Your task to perform on an android device: Add beats solo 3 to the cart on costco.com Image 0: 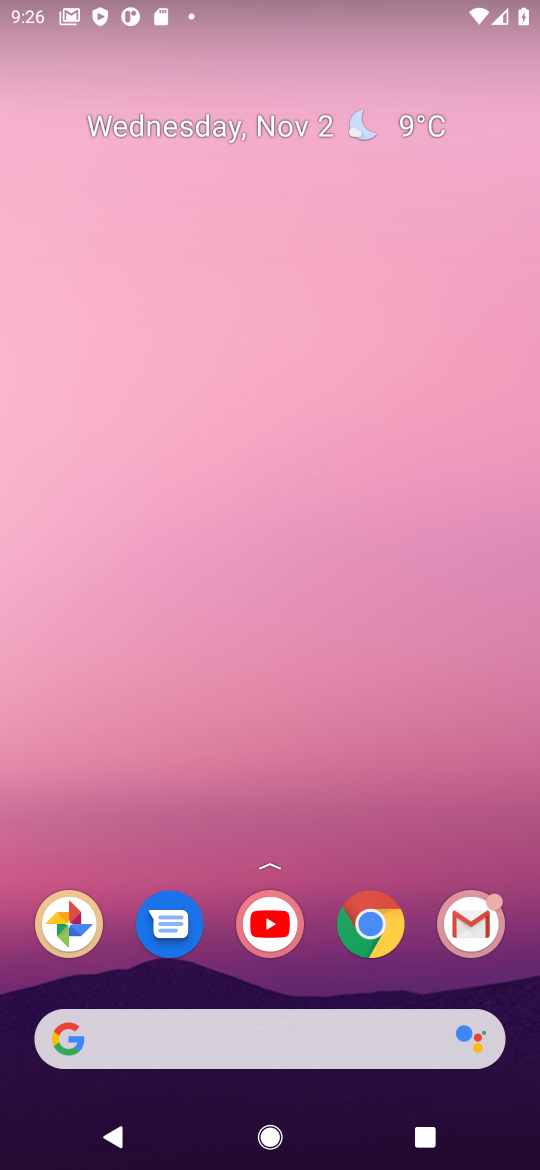
Step 0: click (372, 950)
Your task to perform on an android device: Add beats solo 3 to the cart on costco.com Image 1: 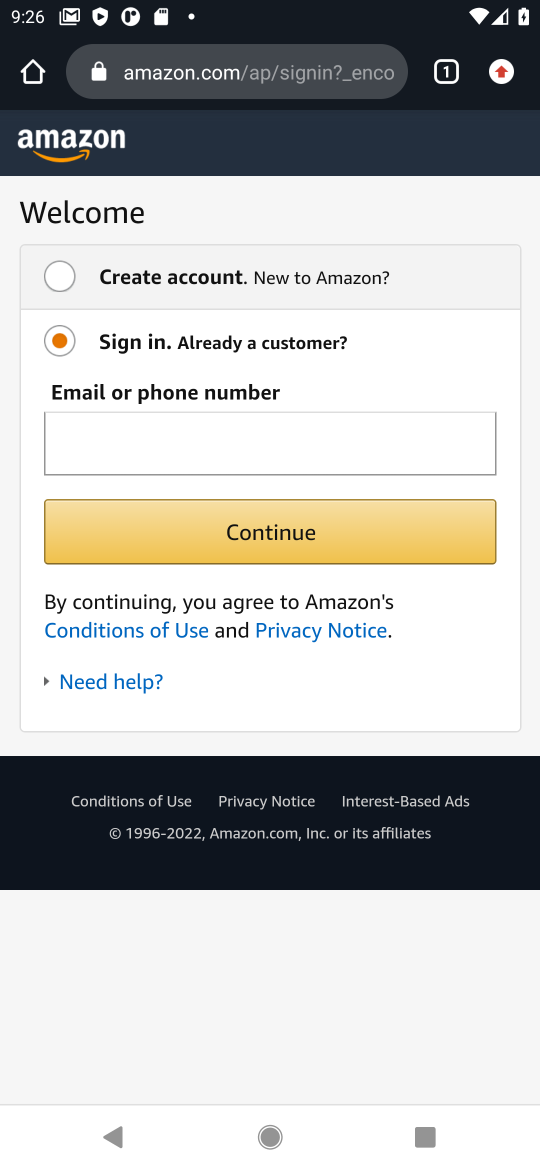
Step 1: press home button
Your task to perform on an android device: Add beats solo 3 to the cart on costco.com Image 2: 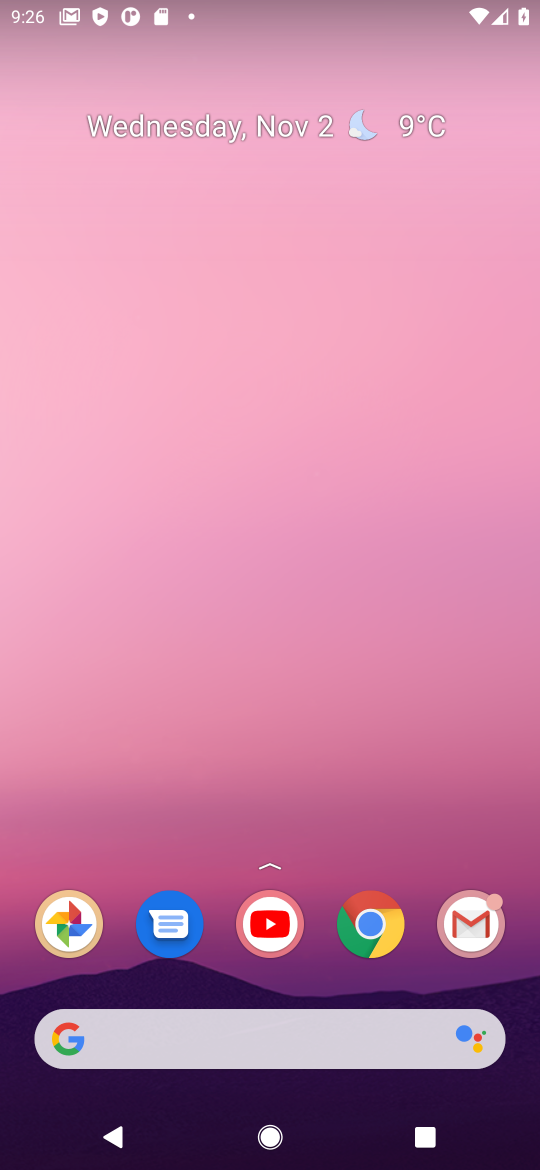
Step 2: click (381, 925)
Your task to perform on an android device: Add beats solo 3 to the cart on costco.com Image 3: 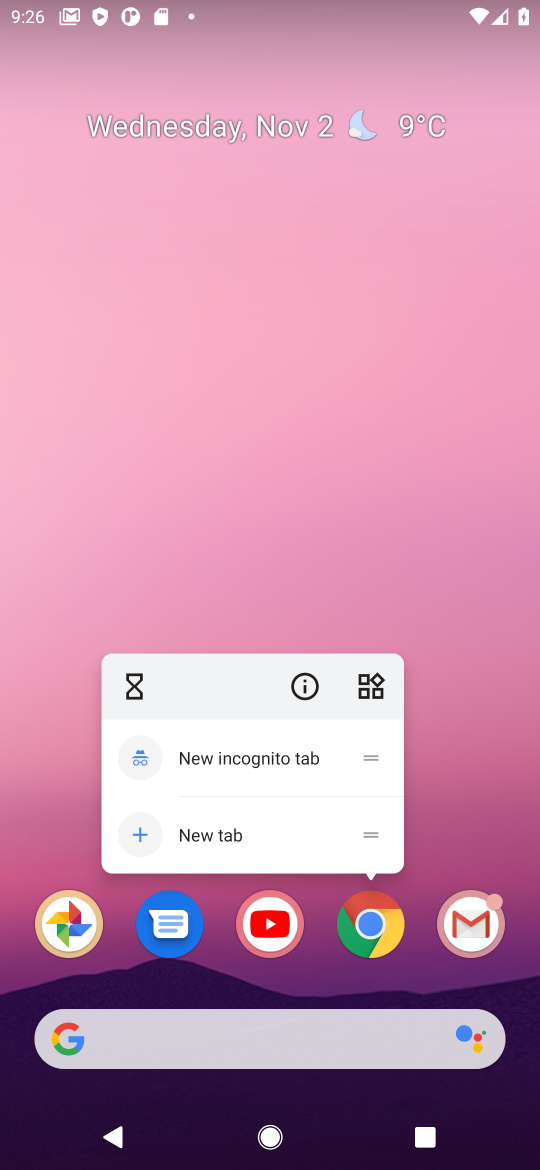
Step 3: click (381, 925)
Your task to perform on an android device: Add beats solo 3 to the cart on costco.com Image 4: 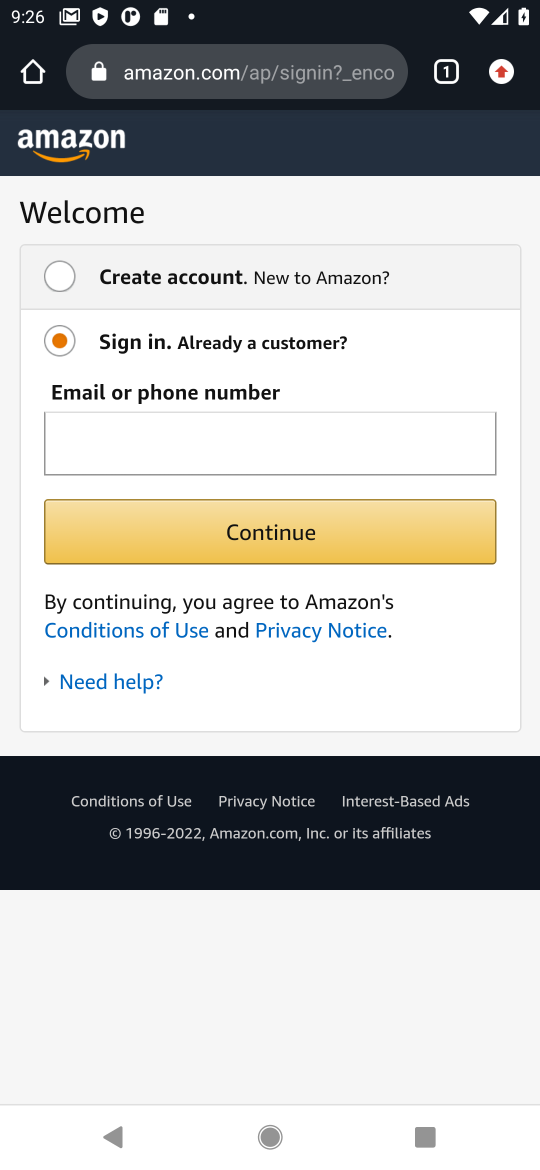
Step 4: click (169, 60)
Your task to perform on an android device: Add beats solo 3 to the cart on costco.com Image 5: 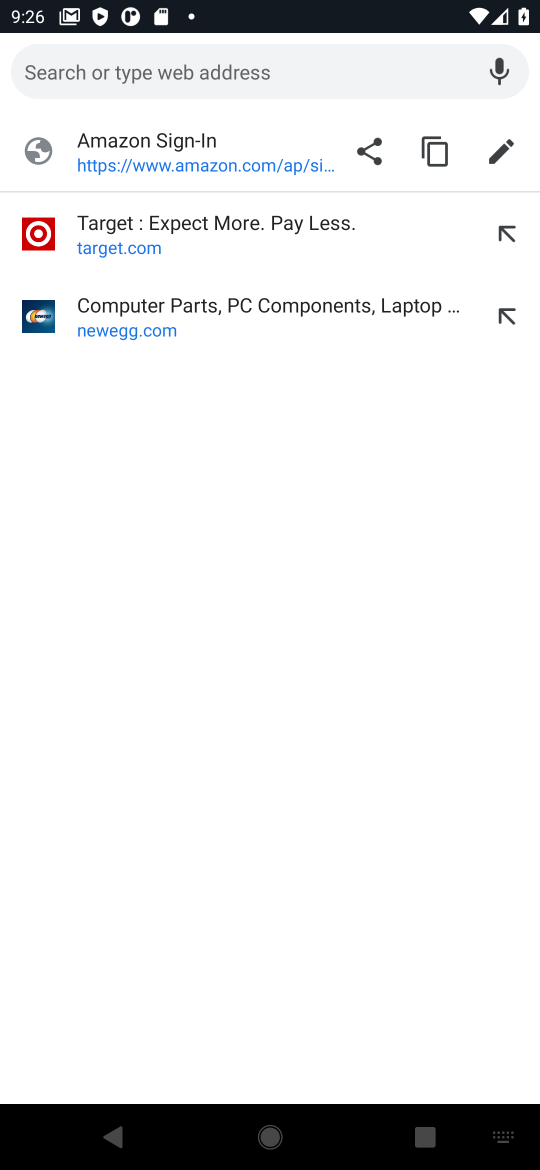
Step 5: type "costco"
Your task to perform on an android device: Add beats solo 3 to the cart on costco.com Image 6: 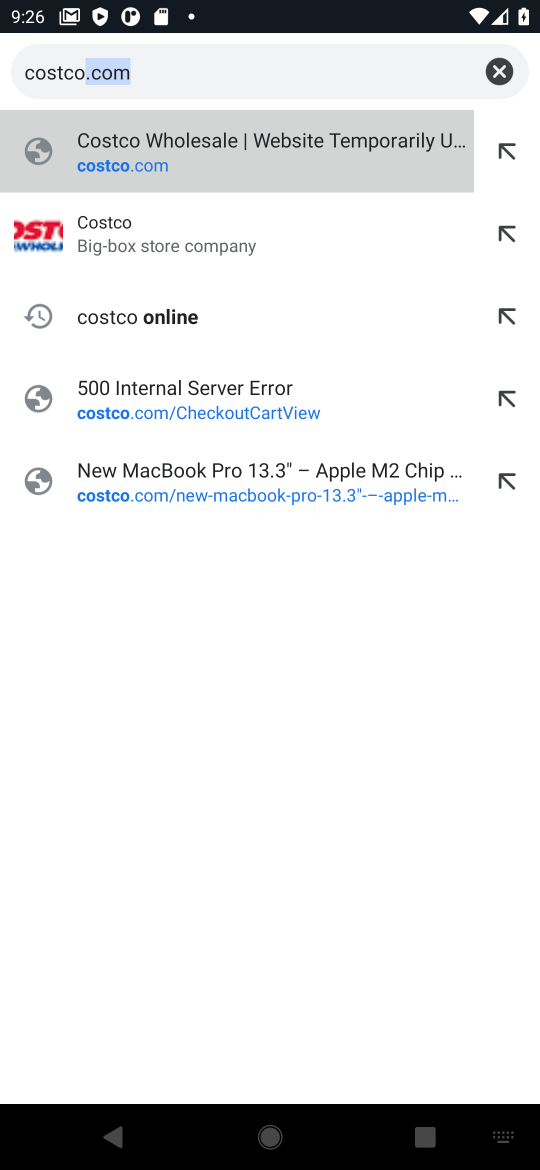
Step 6: type ""
Your task to perform on an android device: Add beats solo 3 to the cart on costco.com Image 7: 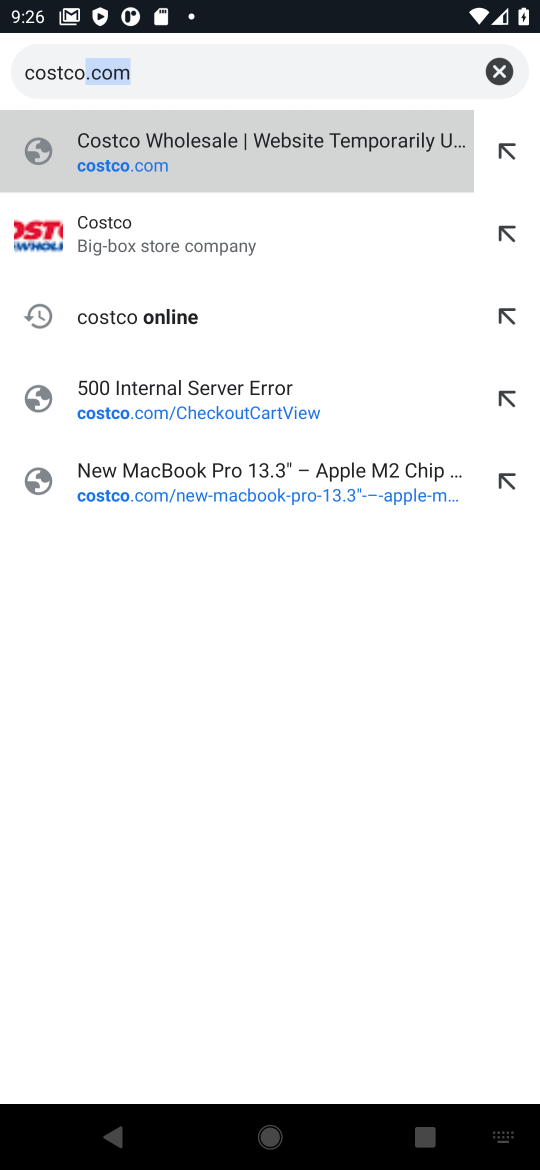
Step 7: click (130, 216)
Your task to perform on an android device: Add beats solo 3 to the cart on costco.com Image 8: 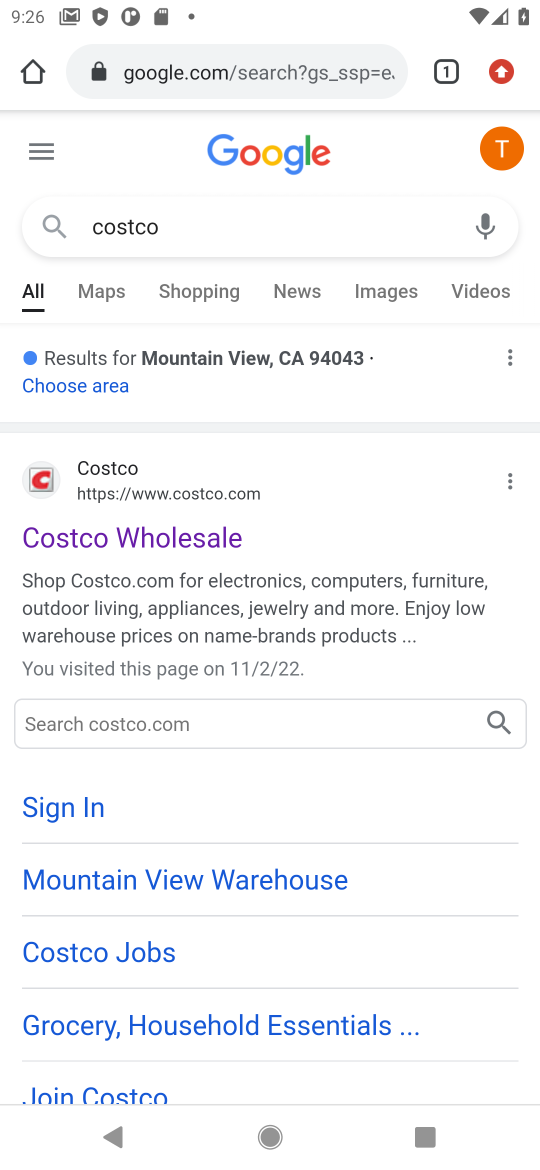
Step 8: click (169, 543)
Your task to perform on an android device: Add beats solo 3 to the cart on costco.com Image 9: 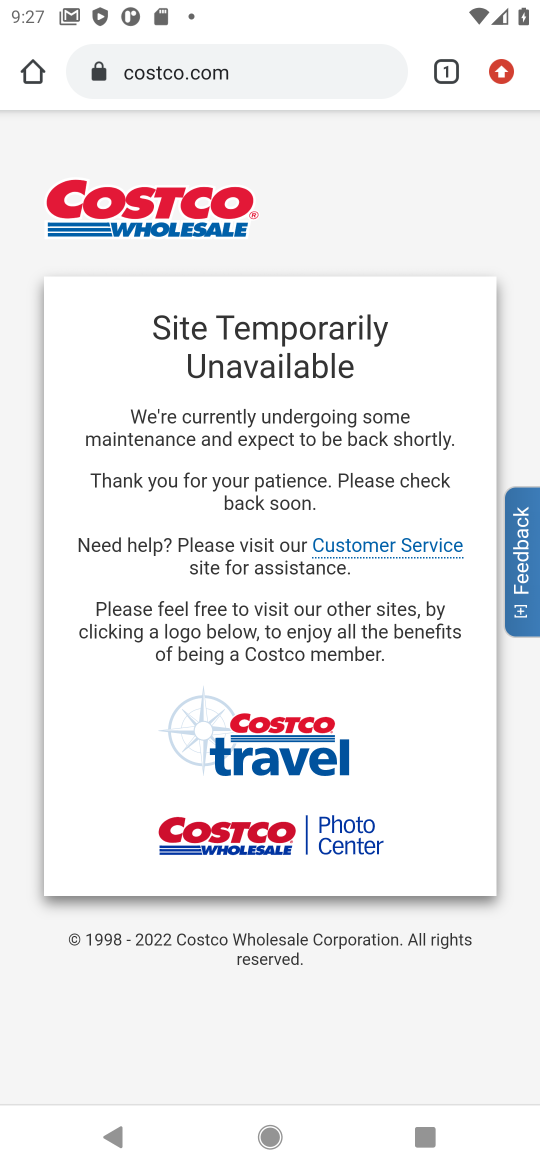
Step 9: press back button
Your task to perform on an android device: Add beats solo 3 to the cart on costco.com Image 10: 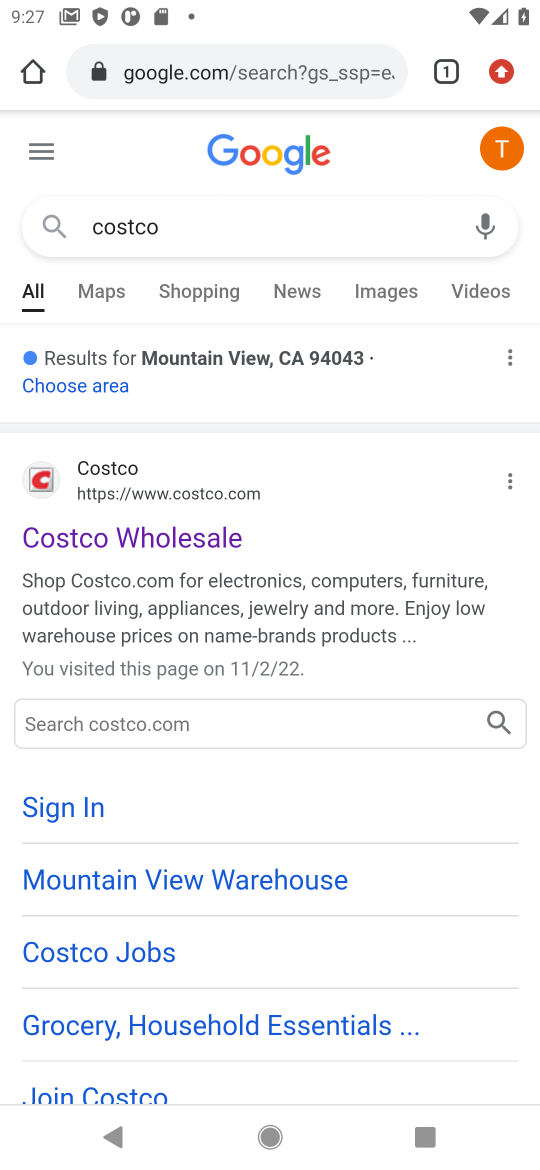
Step 10: drag from (295, 719) to (301, 197)
Your task to perform on an android device: Add beats solo 3 to the cart on costco.com Image 11: 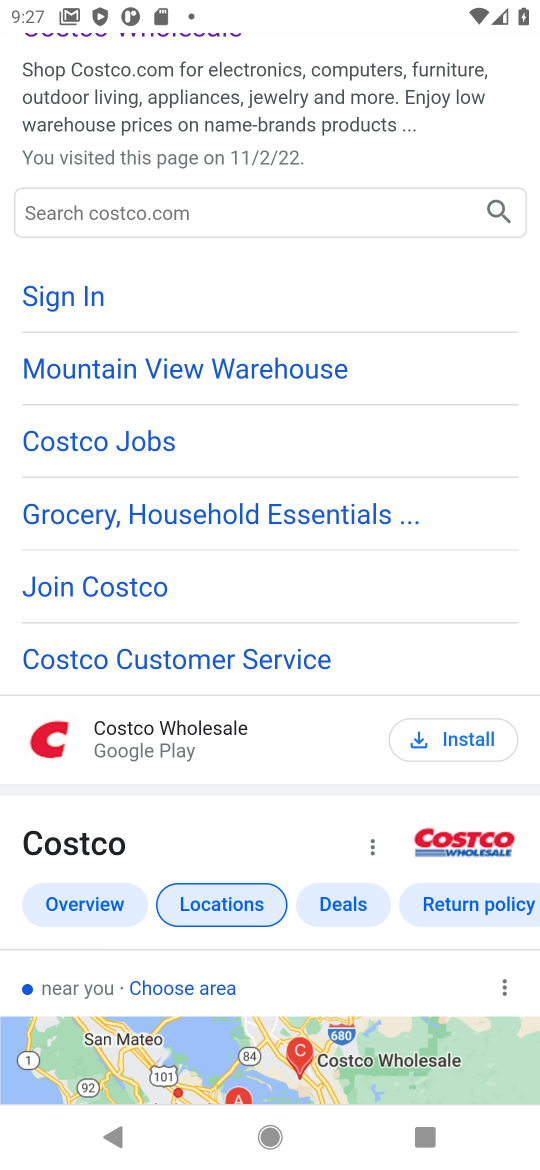
Step 11: drag from (188, 890) to (359, 121)
Your task to perform on an android device: Add beats solo 3 to the cart on costco.com Image 12: 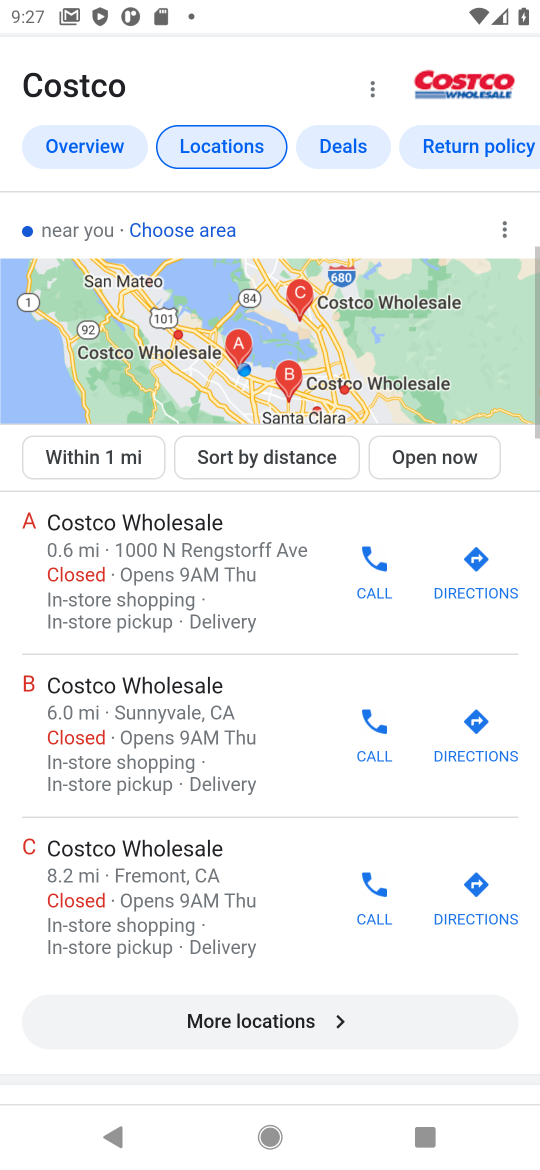
Step 12: drag from (154, 920) to (226, 255)
Your task to perform on an android device: Add beats solo 3 to the cart on costco.com Image 13: 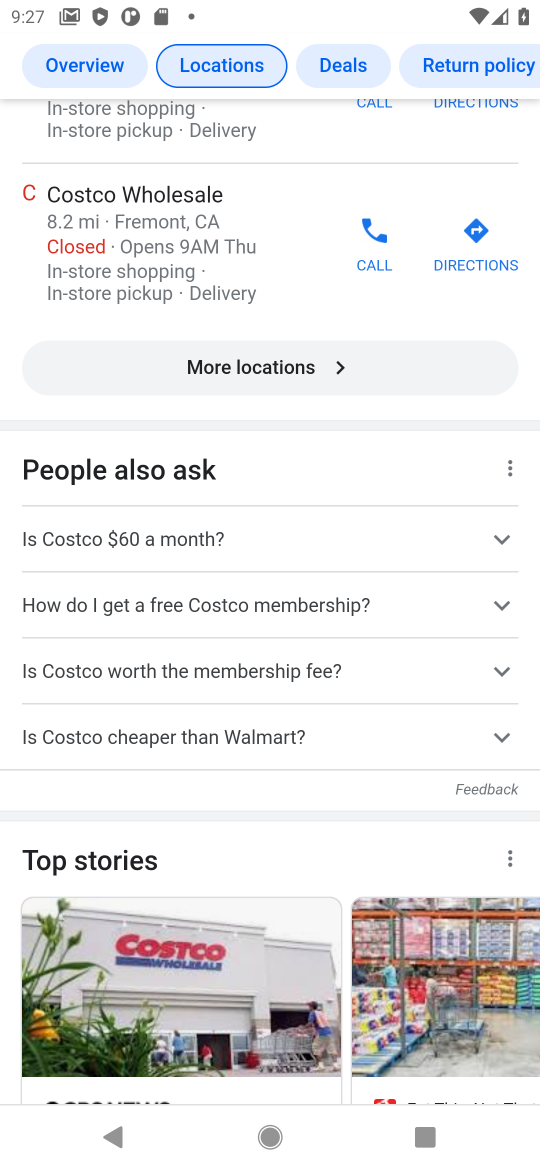
Step 13: drag from (260, 245) to (184, 1118)
Your task to perform on an android device: Add beats solo 3 to the cart on costco.com Image 14: 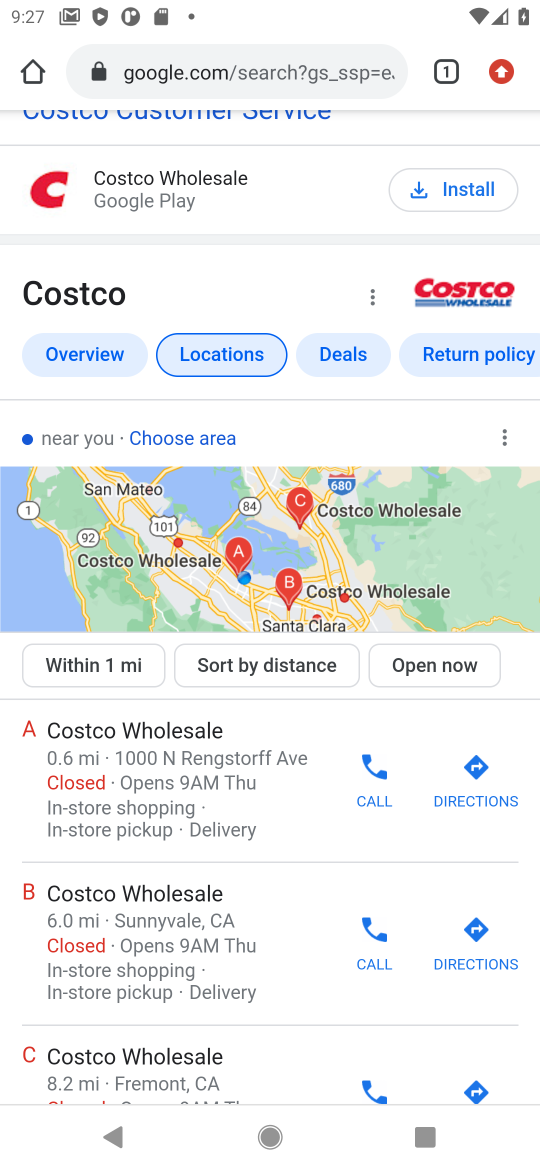
Step 14: drag from (202, 296) to (233, 658)
Your task to perform on an android device: Add beats solo 3 to the cart on costco.com Image 15: 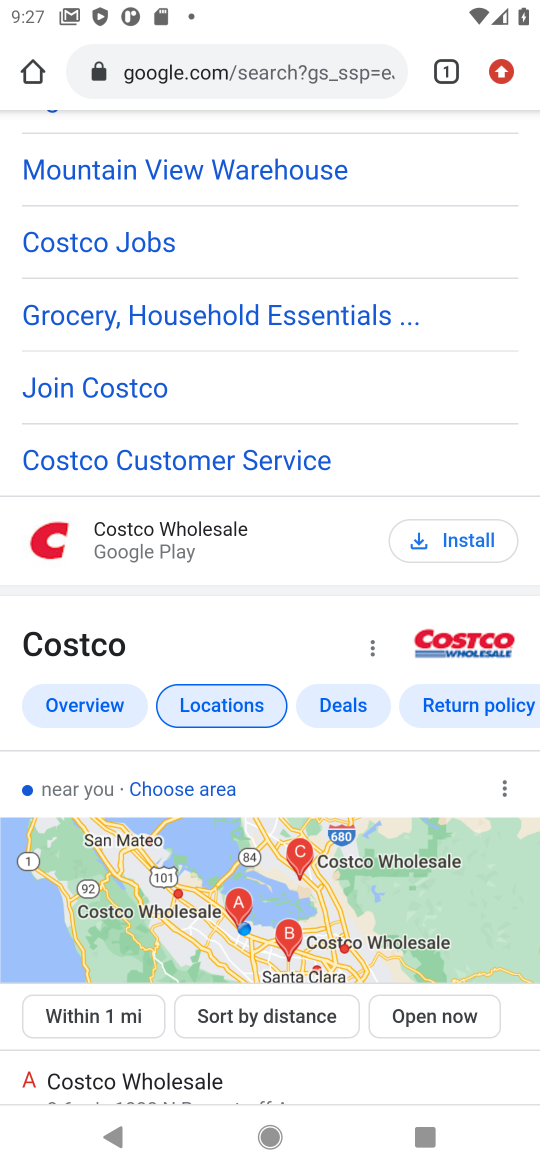
Step 15: drag from (346, 200) to (123, 739)
Your task to perform on an android device: Add beats solo 3 to the cart on costco.com Image 16: 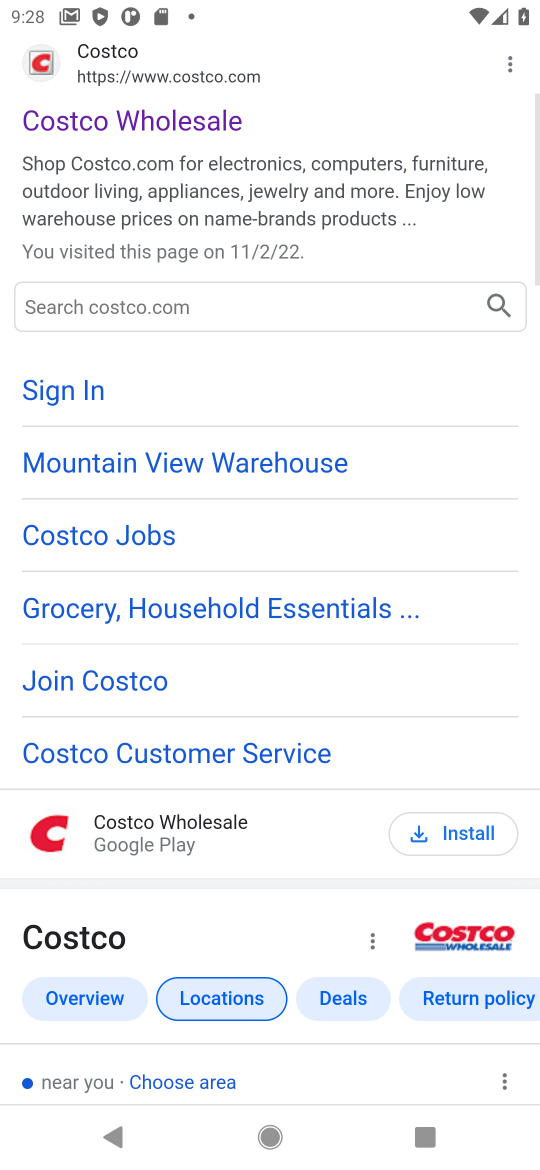
Step 16: drag from (298, 922) to (329, 108)
Your task to perform on an android device: Add beats solo 3 to the cart on costco.com Image 17: 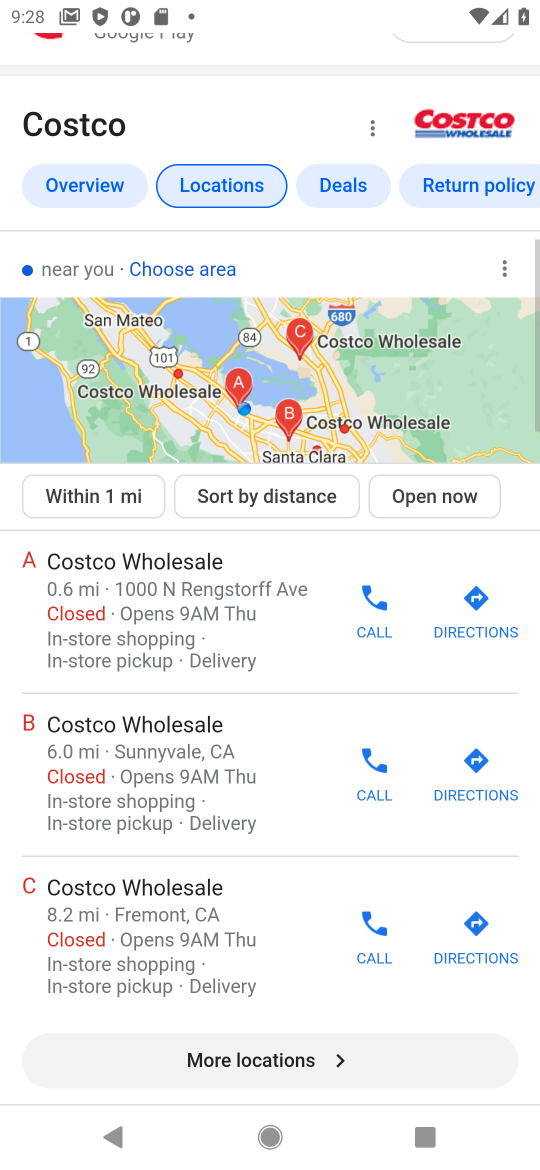
Step 17: drag from (79, 1074) to (199, 176)
Your task to perform on an android device: Add beats solo 3 to the cart on costco.com Image 18: 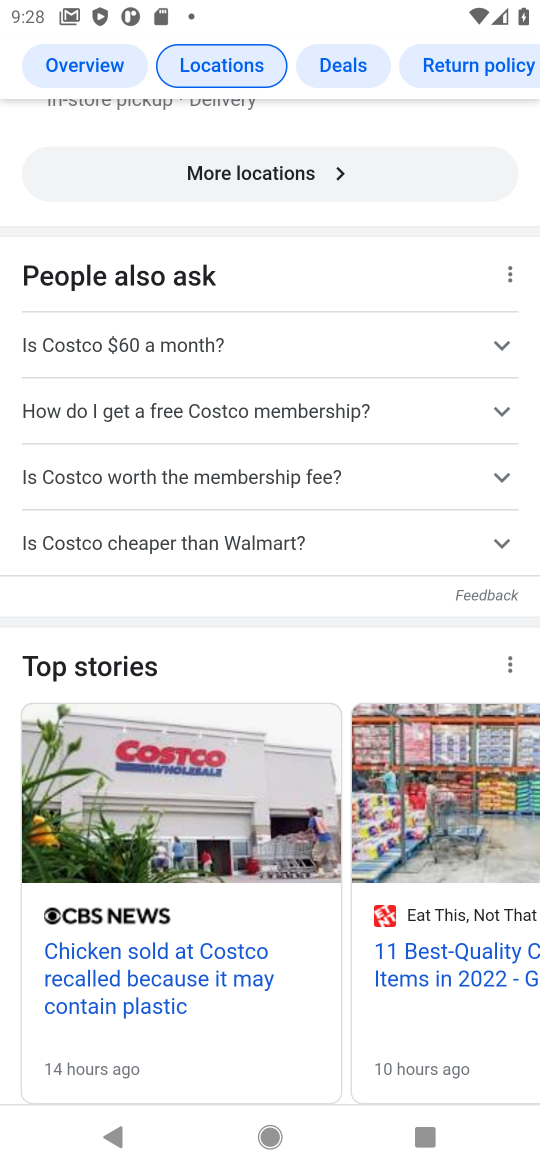
Step 18: drag from (148, 835) to (337, 140)
Your task to perform on an android device: Add beats solo 3 to the cart on costco.com Image 19: 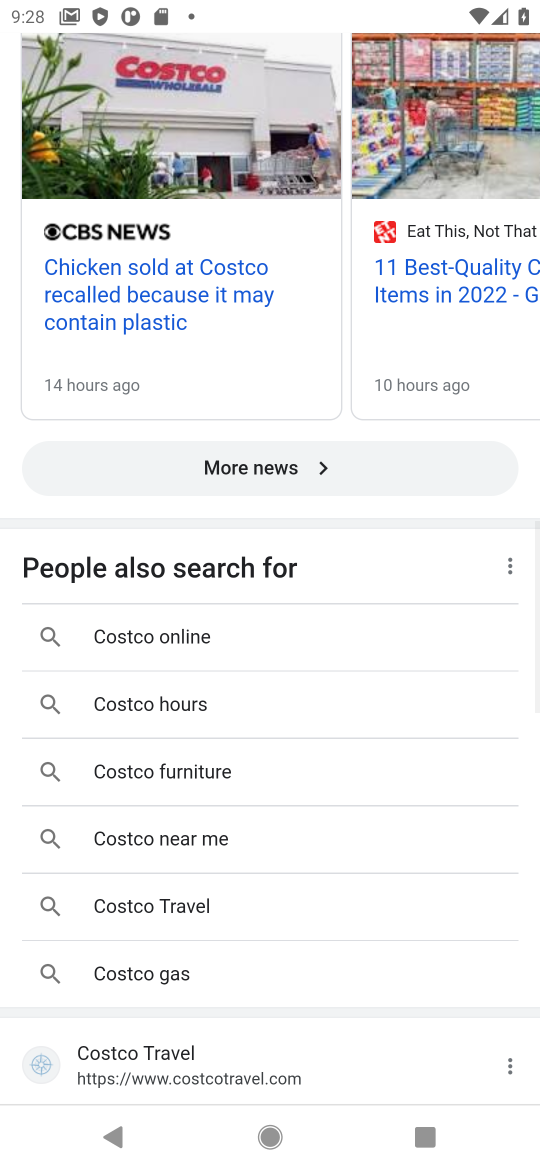
Step 19: drag from (259, 901) to (371, 308)
Your task to perform on an android device: Add beats solo 3 to the cart on costco.com Image 20: 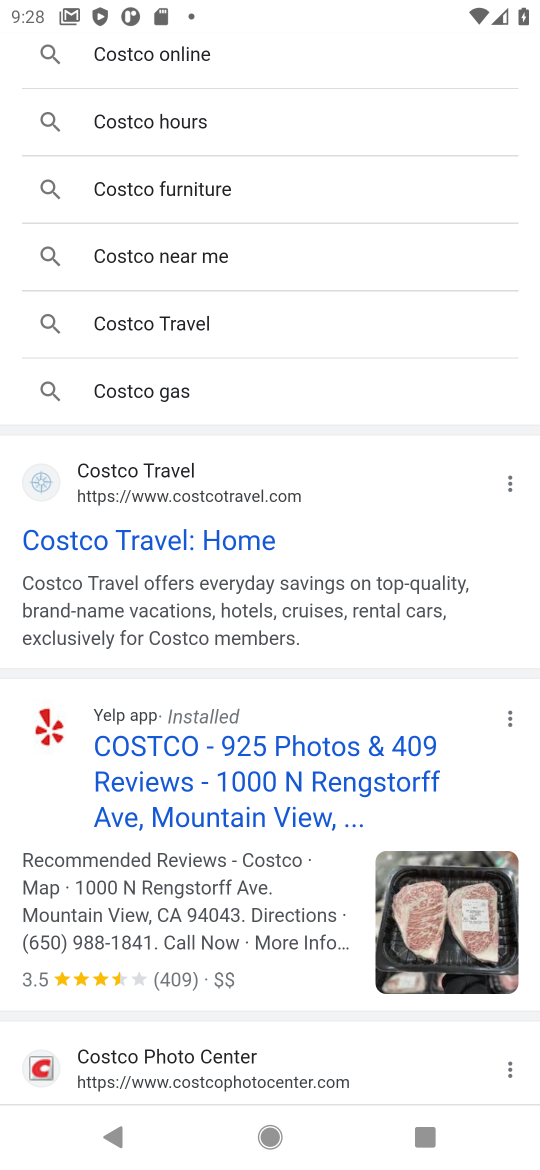
Step 20: click (139, 551)
Your task to perform on an android device: Add beats solo 3 to the cart on costco.com Image 21: 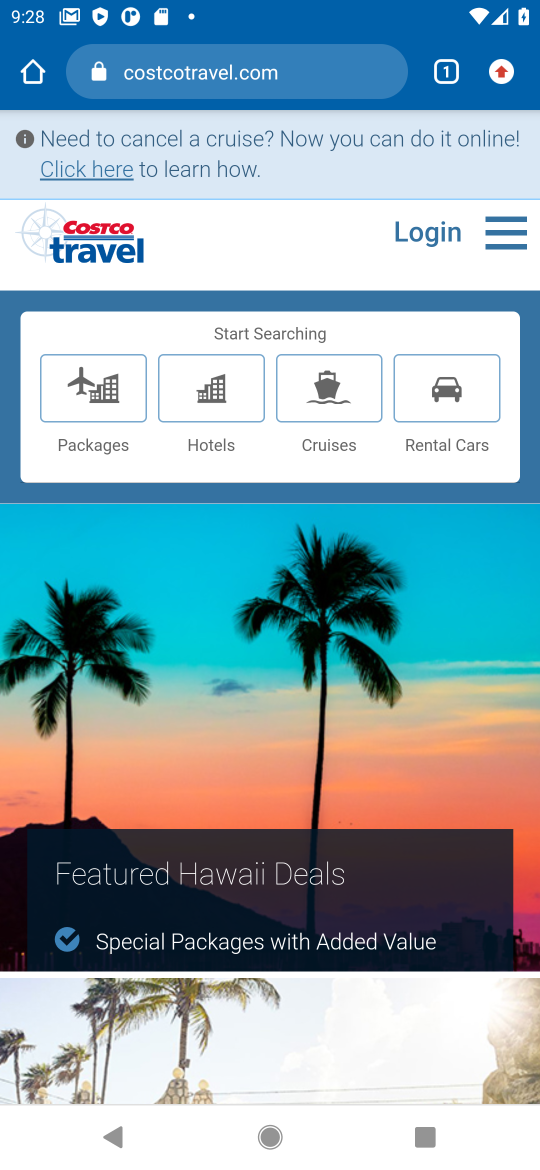
Step 21: drag from (207, 683) to (347, 226)
Your task to perform on an android device: Add beats solo 3 to the cart on costco.com Image 22: 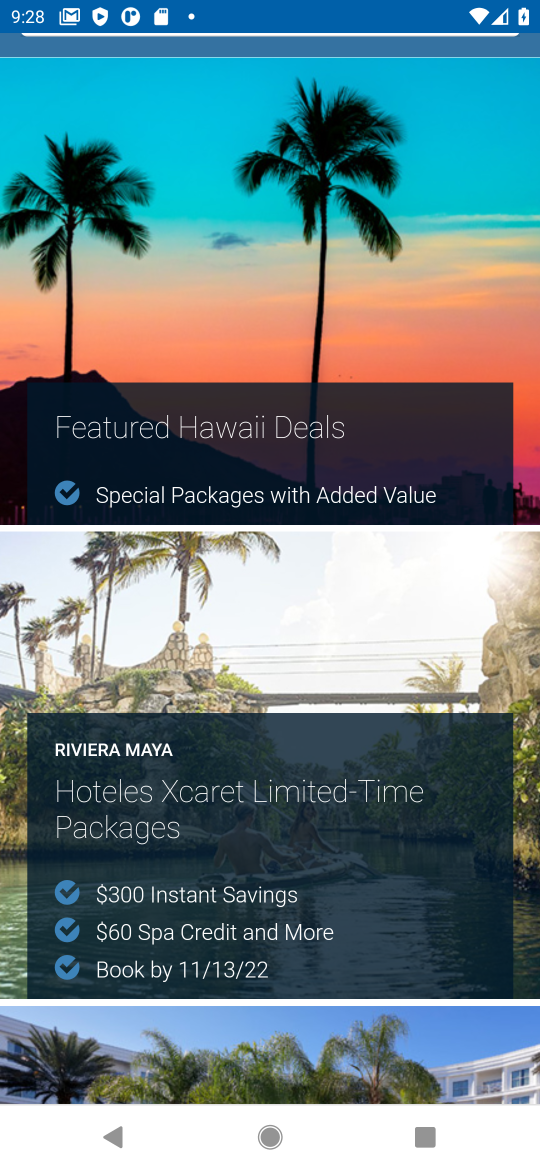
Step 22: drag from (335, 256) to (30, 481)
Your task to perform on an android device: Add beats solo 3 to the cart on costco.com Image 23: 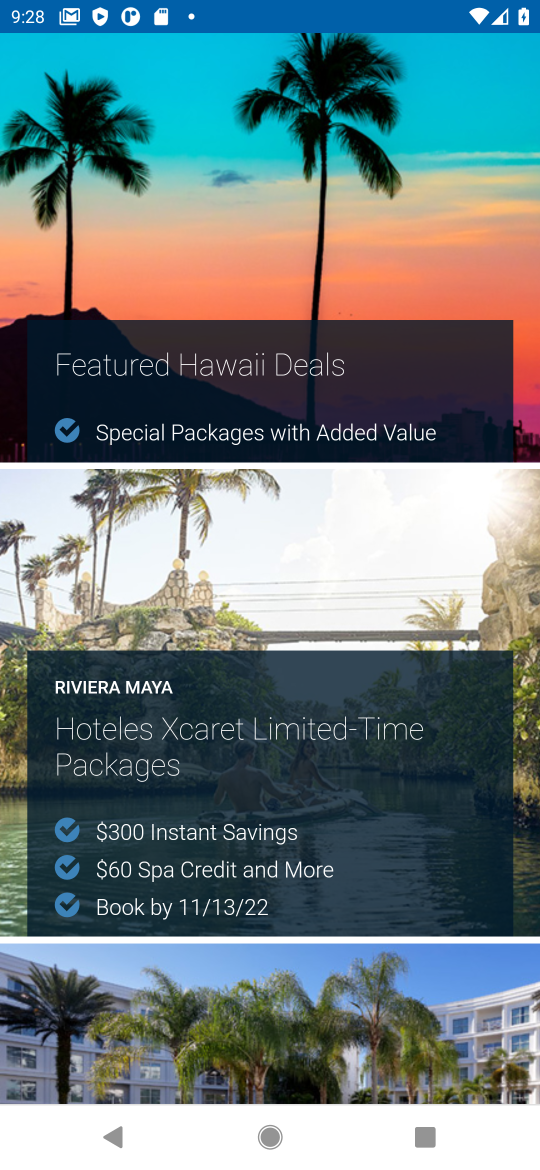
Step 23: press back button
Your task to perform on an android device: Add beats solo 3 to the cart on costco.com Image 24: 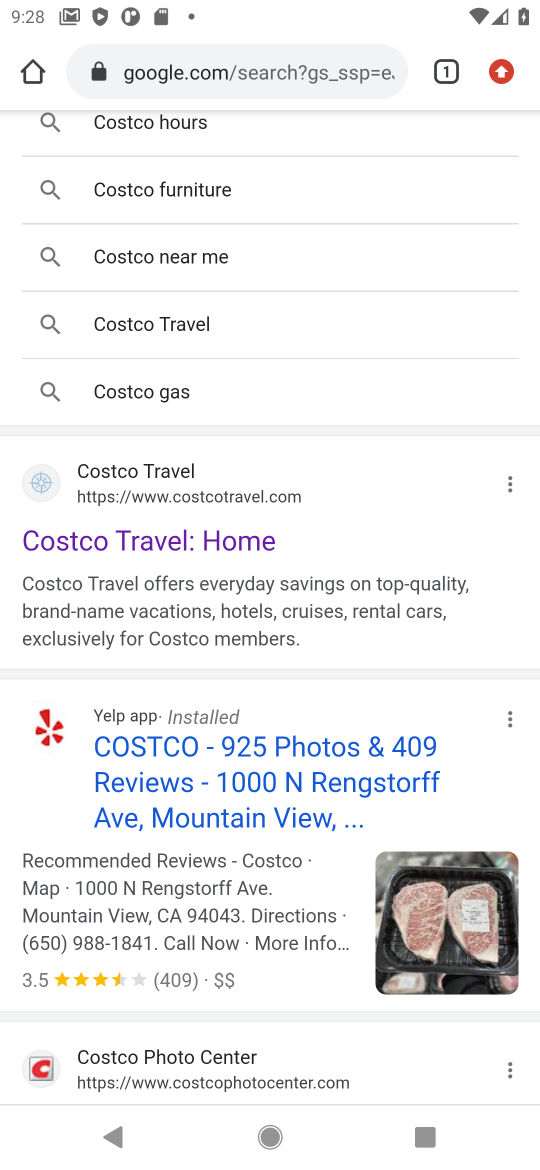
Step 24: drag from (168, 914) to (248, 267)
Your task to perform on an android device: Add beats solo 3 to the cart on costco.com Image 25: 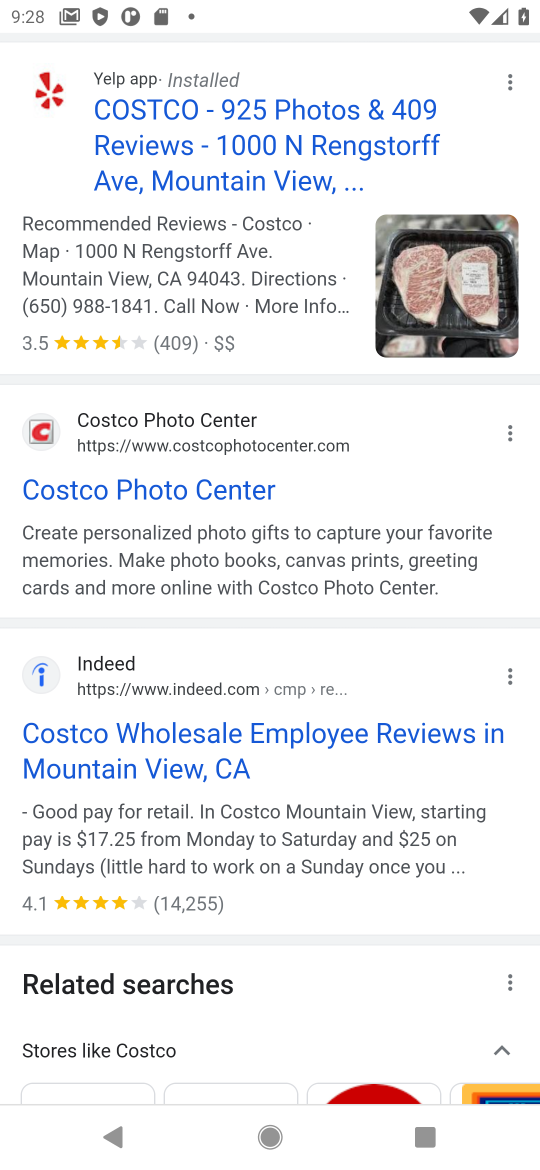
Step 25: drag from (227, 871) to (158, 1125)
Your task to perform on an android device: Add beats solo 3 to the cart on costco.com Image 26: 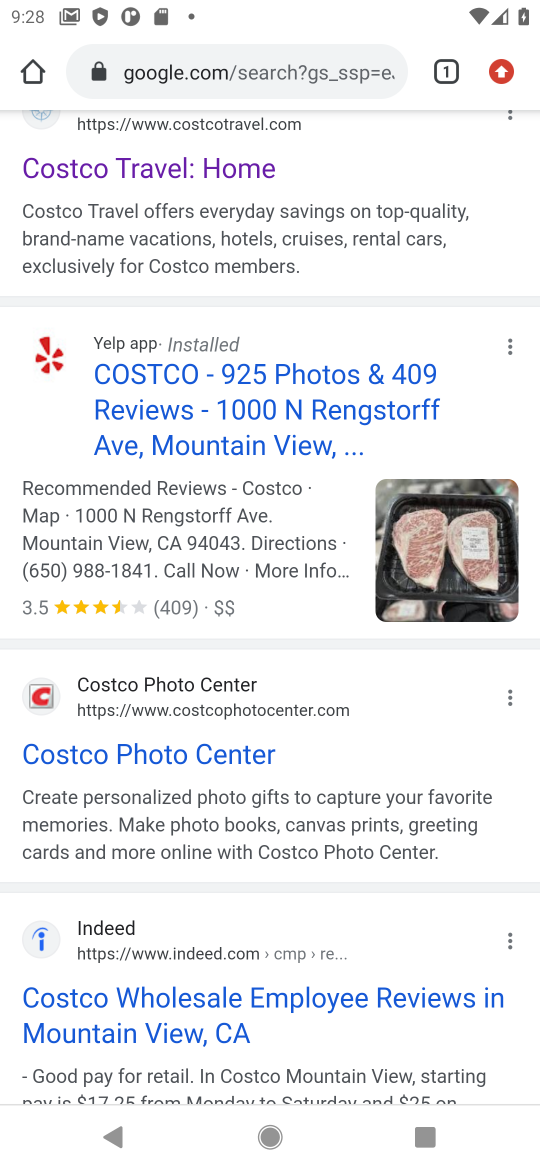
Step 26: drag from (108, 257) to (191, 971)
Your task to perform on an android device: Add beats solo 3 to the cart on costco.com Image 27: 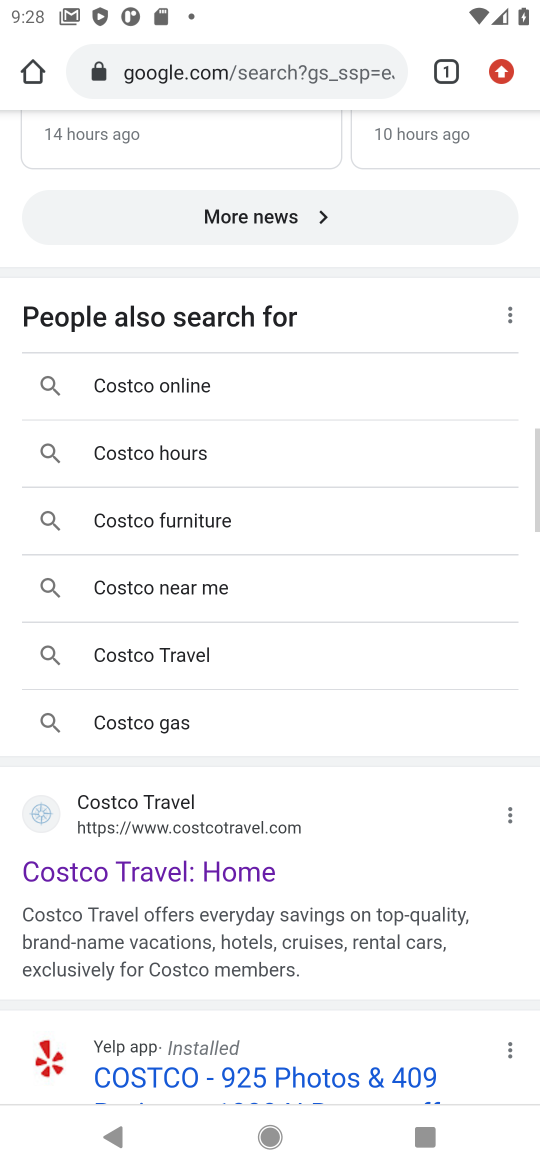
Step 27: drag from (191, 254) to (188, 838)
Your task to perform on an android device: Add beats solo 3 to the cart on costco.com Image 28: 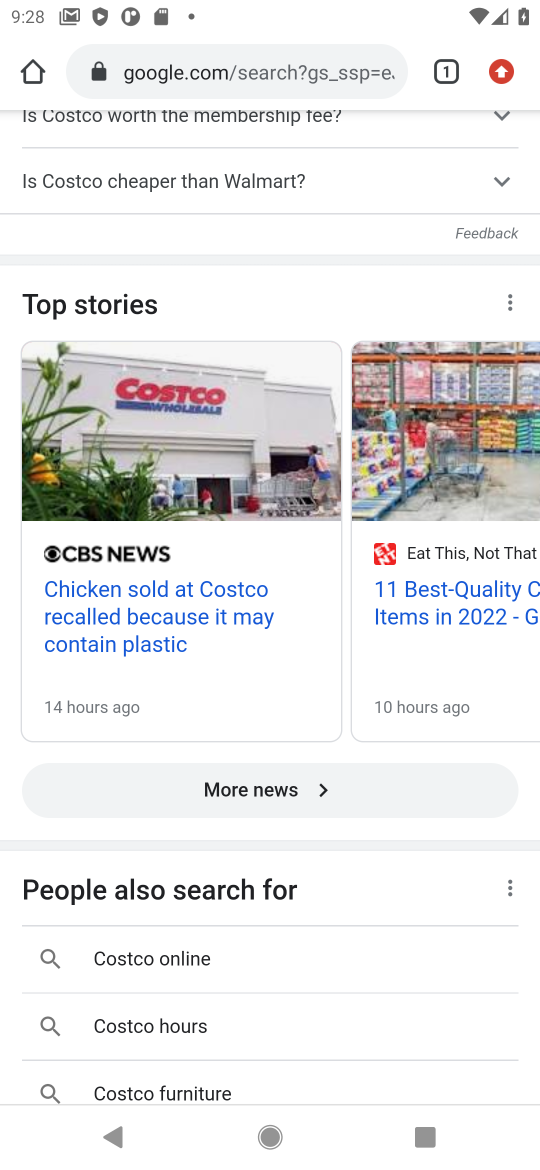
Step 28: drag from (102, 457) to (111, 891)
Your task to perform on an android device: Add beats solo 3 to the cart on costco.com Image 29: 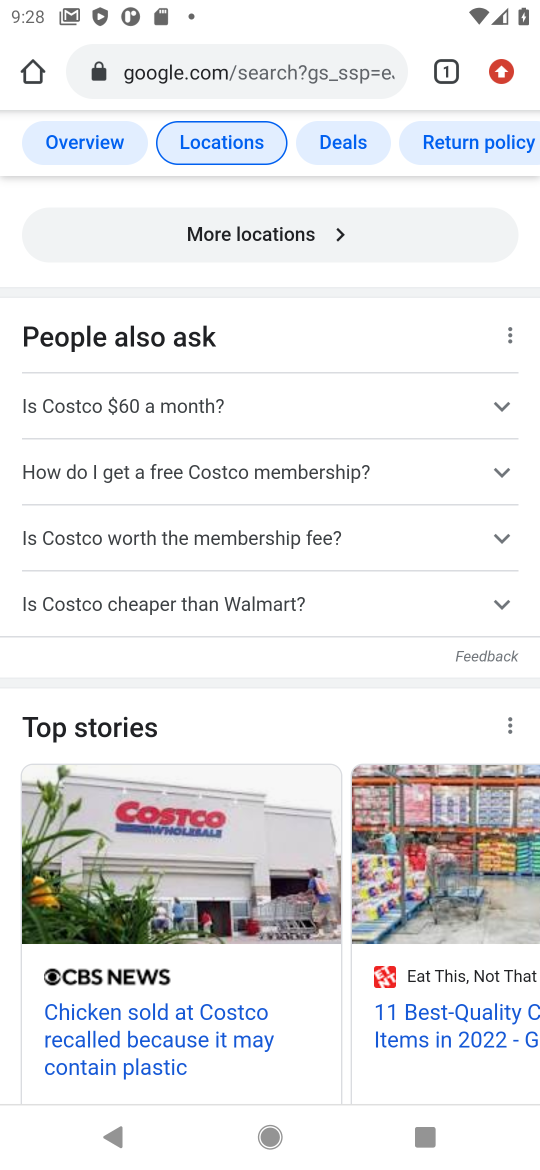
Step 29: drag from (99, 404) to (99, 840)
Your task to perform on an android device: Add beats solo 3 to the cart on costco.com Image 30: 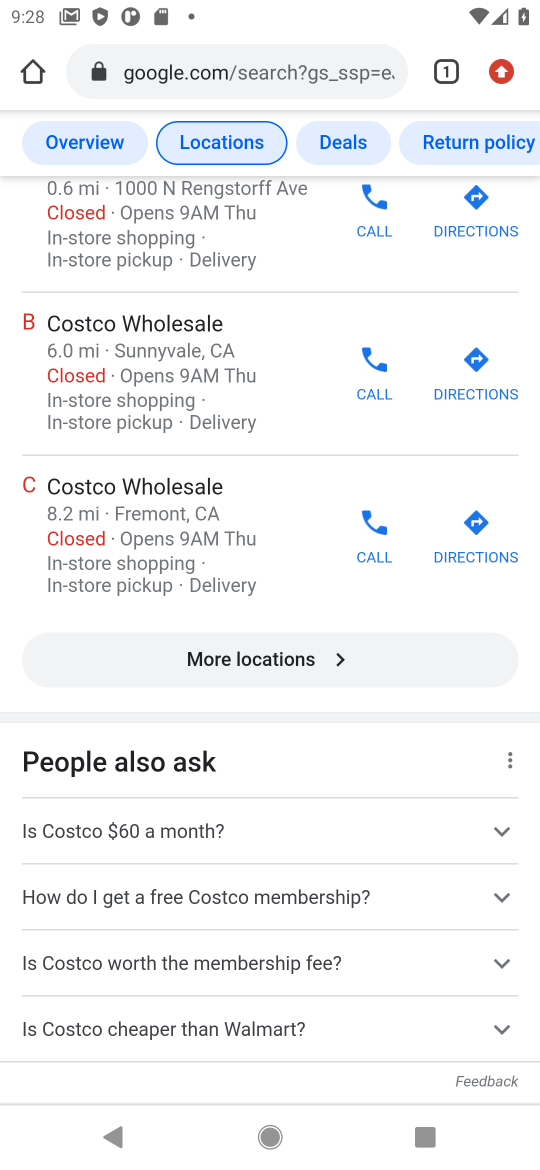
Step 30: drag from (115, 203) to (140, 680)
Your task to perform on an android device: Add beats solo 3 to the cart on costco.com Image 31: 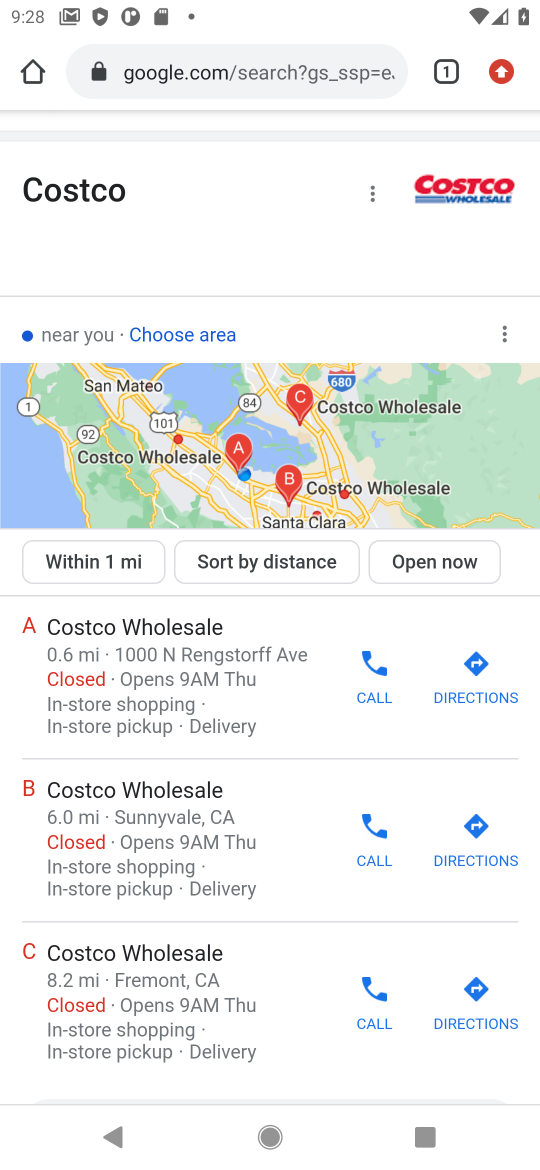
Step 31: drag from (65, 493) to (63, 736)
Your task to perform on an android device: Add beats solo 3 to the cart on costco.com Image 32: 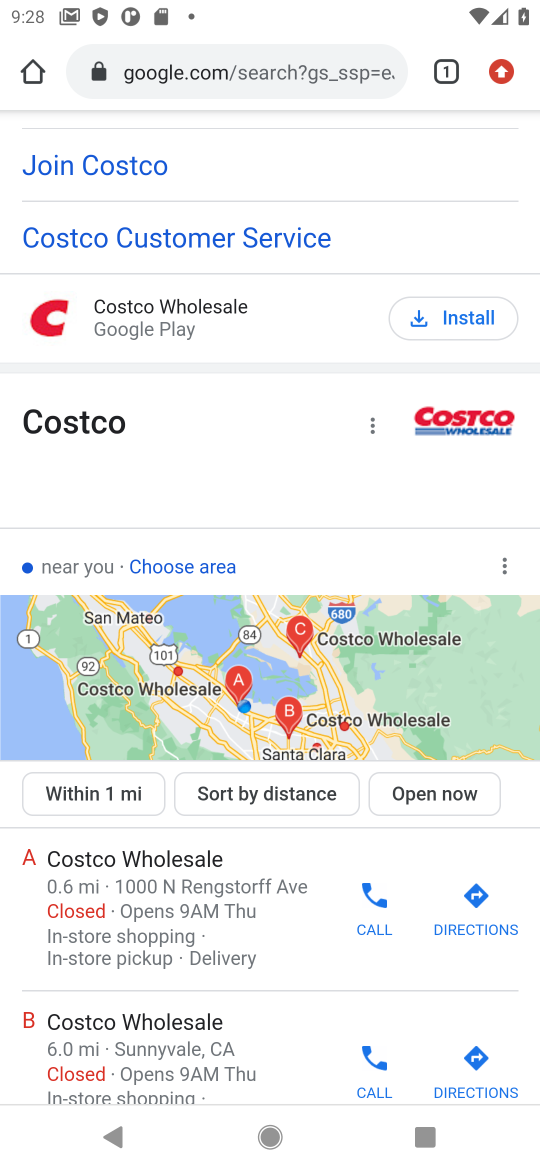
Step 32: drag from (110, 591) to (108, 1087)
Your task to perform on an android device: Add beats solo 3 to the cart on costco.com Image 33: 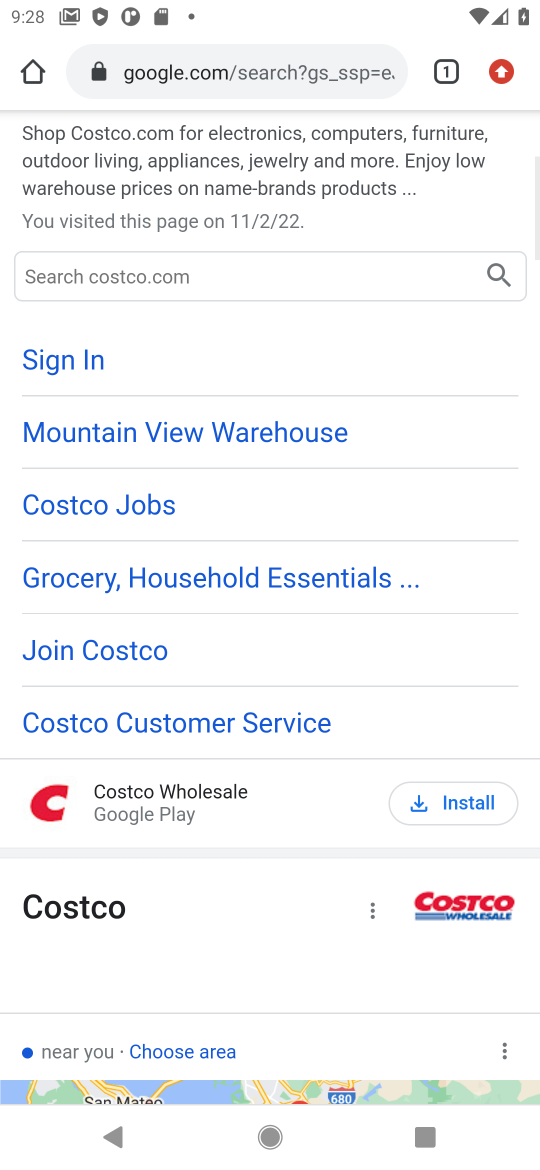
Step 33: drag from (135, 486) to (132, 769)
Your task to perform on an android device: Add beats solo 3 to the cart on costco.com Image 34: 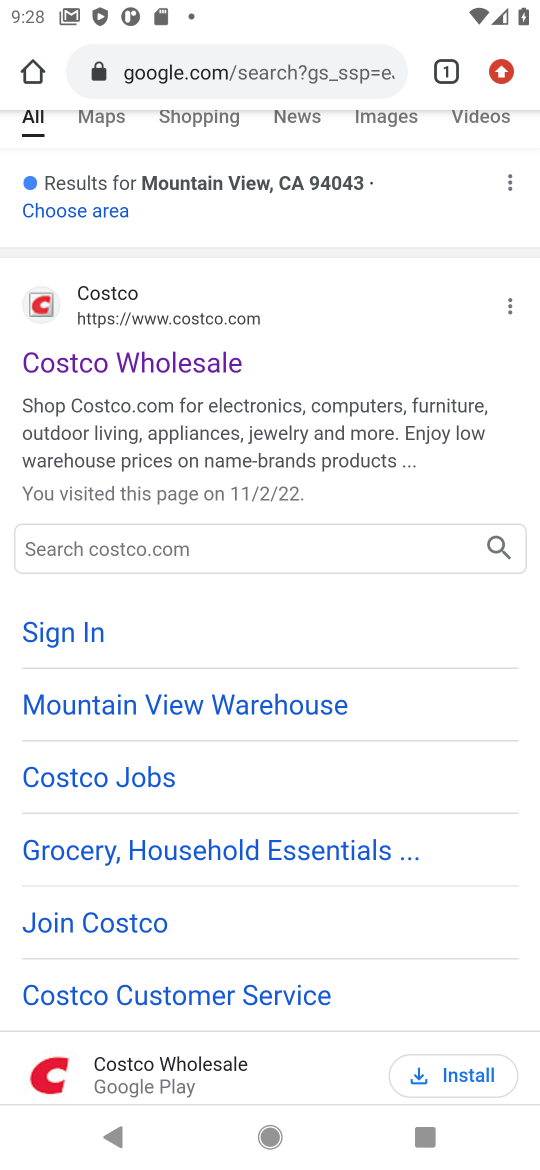
Step 34: click (136, 360)
Your task to perform on an android device: Add beats solo 3 to the cart on costco.com Image 35: 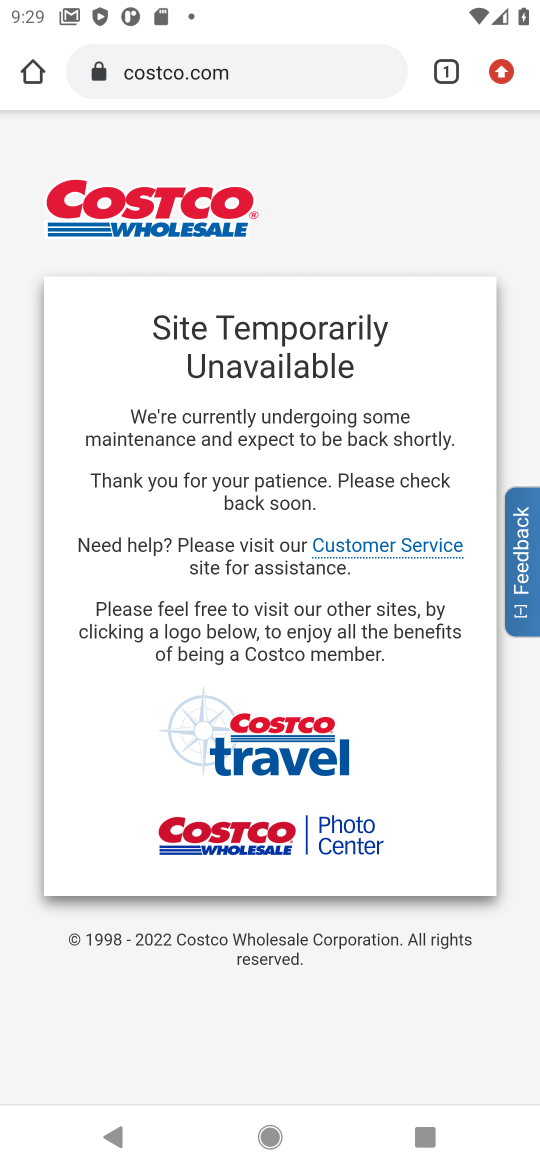
Step 35: task complete